Your task to perform on an android device: change the clock display to digital Image 0: 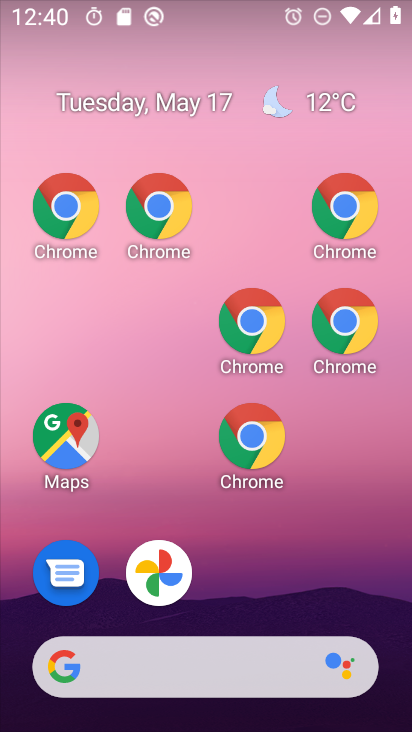
Step 0: drag from (328, 602) to (125, 15)
Your task to perform on an android device: change the clock display to digital Image 1: 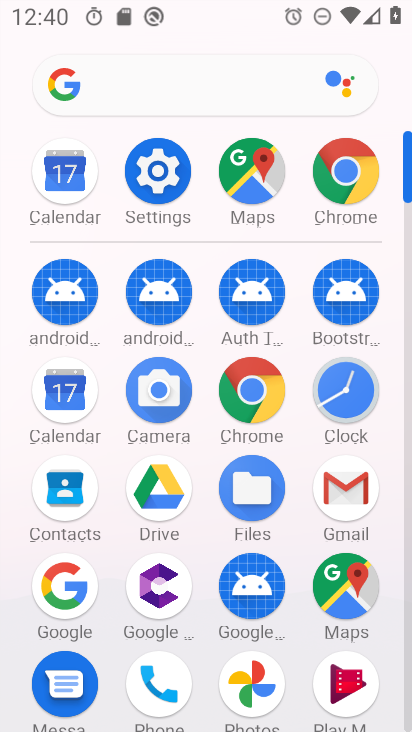
Step 1: click (337, 400)
Your task to perform on an android device: change the clock display to digital Image 2: 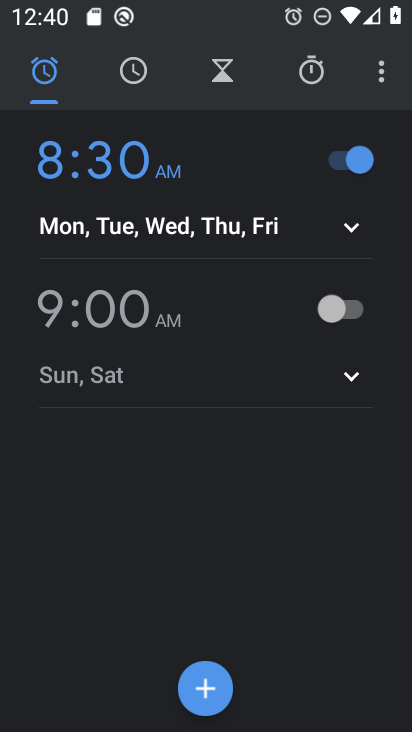
Step 2: click (378, 69)
Your task to perform on an android device: change the clock display to digital Image 3: 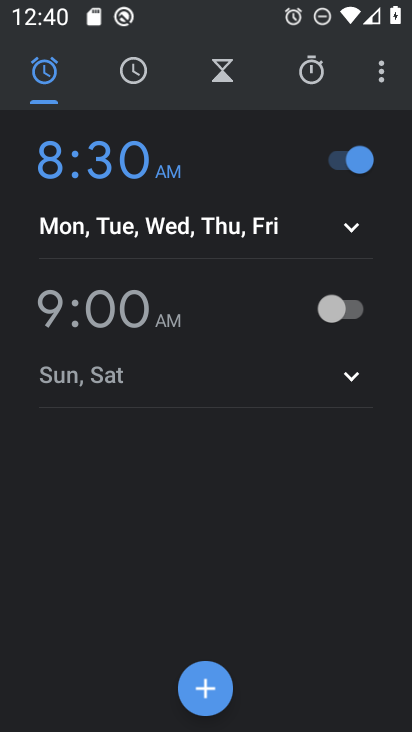
Step 3: click (378, 77)
Your task to perform on an android device: change the clock display to digital Image 4: 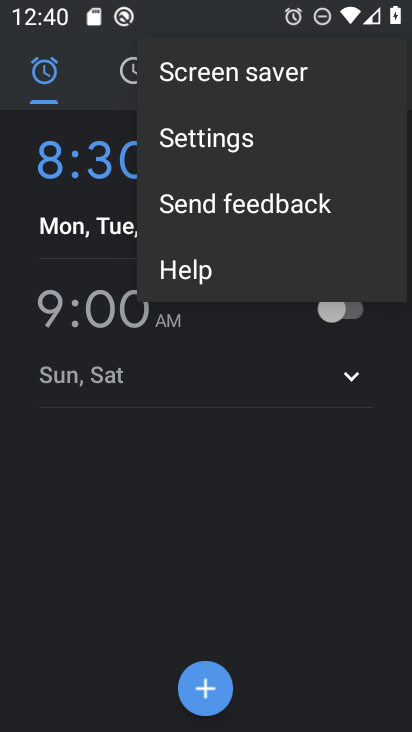
Step 4: click (233, 144)
Your task to perform on an android device: change the clock display to digital Image 5: 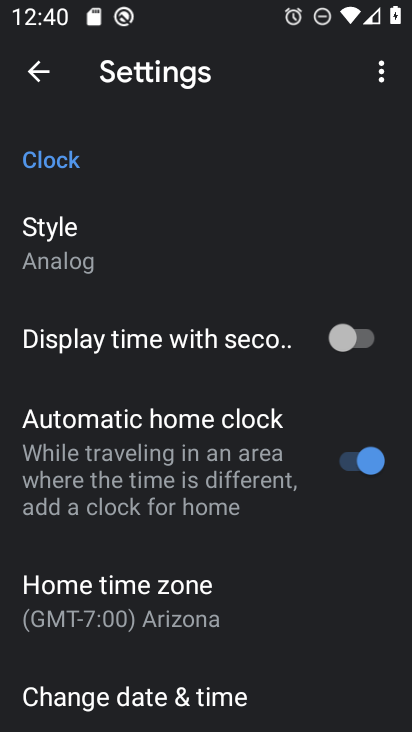
Step 5: click (100, 251)
Your task to perform on an android device: change the clock display to digital Image 6: 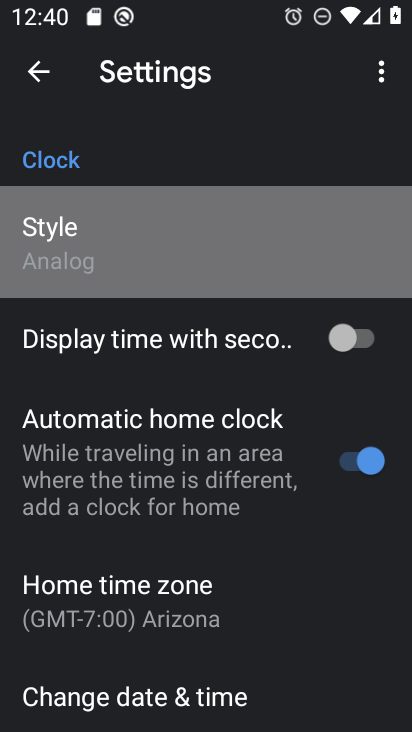
Step 6: click (105, 248)
Your task to perform on an android device: change the clock display to digital Image 7: 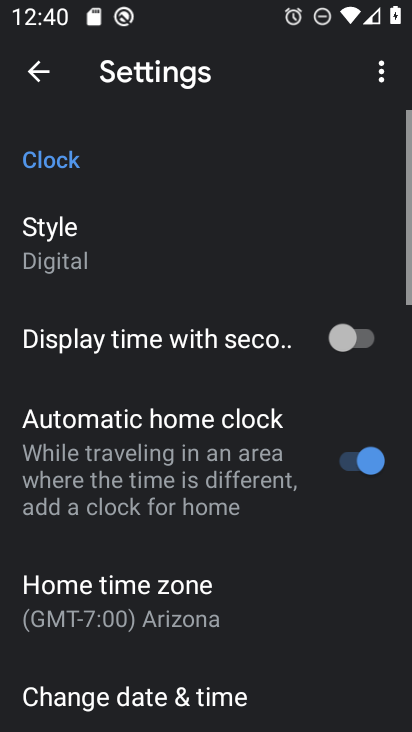
Step 7: click (108, 232)
Your task to perform on an android device: change the clock display to digital Image 8: 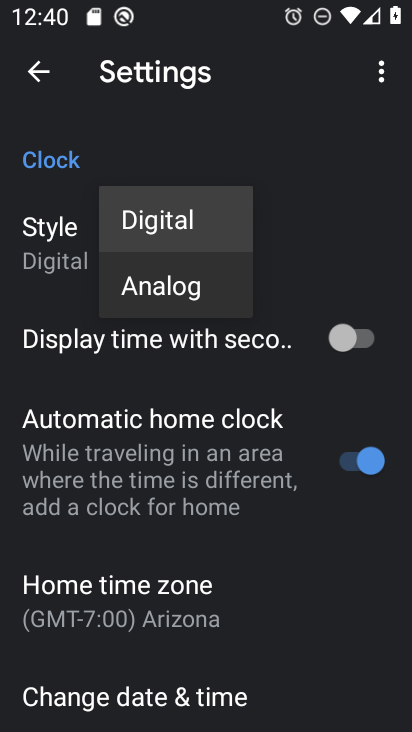
Step 8: click (162, 295)
Your task to perform on an android device: change the clock display to digital Image 9: 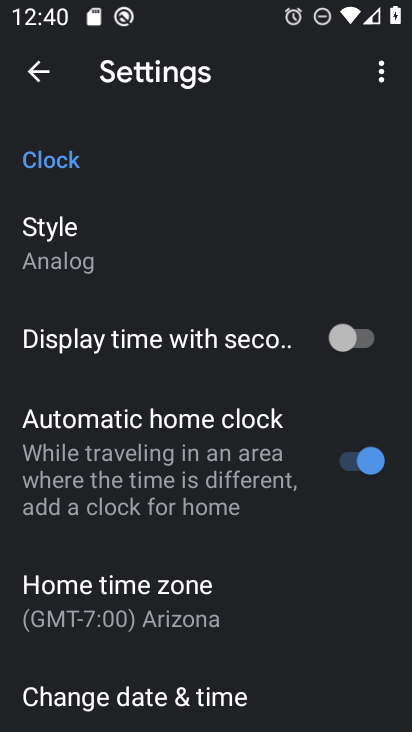
Step 9: click (138, 243)
Your task to perform on an android device: change the clock display to digital Image 10: 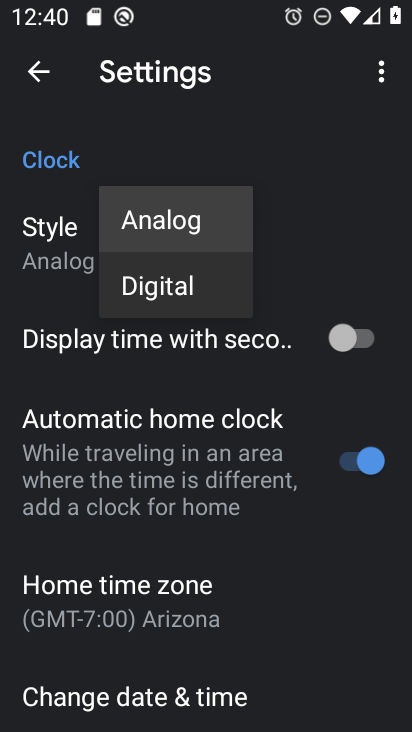
Step 10: click (168, 297)
Your task to perform on an android device: change the clock display to digital Image 11: 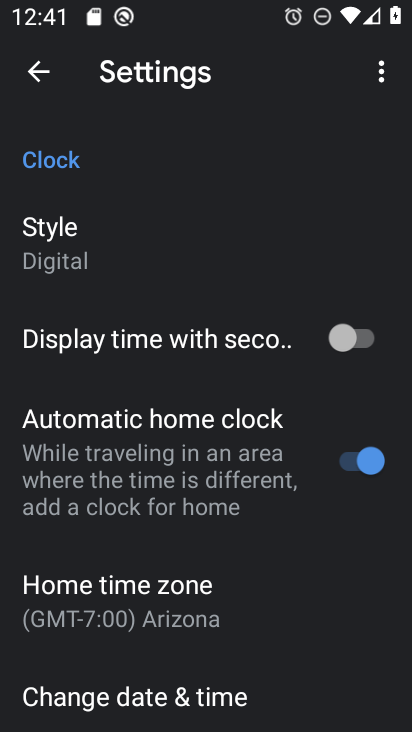
Step 11: task complete